Your task to perform on an android device: Go to wifi settings Image 0: 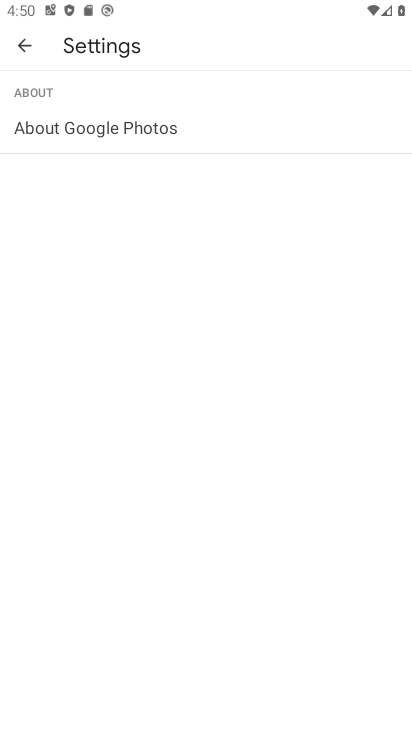
Step 0: press home button
Your task to perform on an android device: Go to wifi settings Image 1: 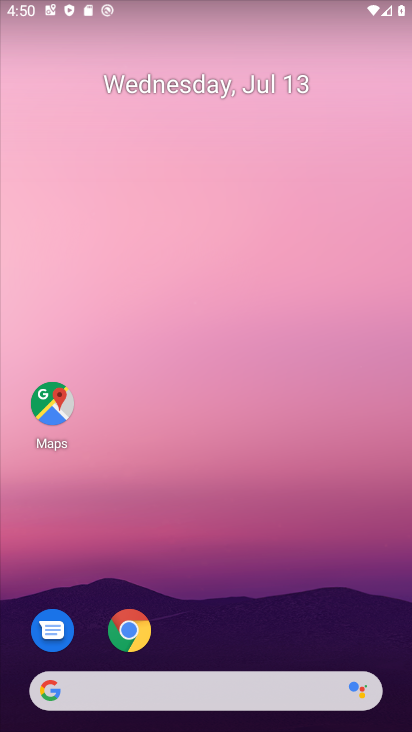
Step 1: drag from (152, 666) to (246, 223)
Your task to perform on an android device: Go to wifi settings Image 2: 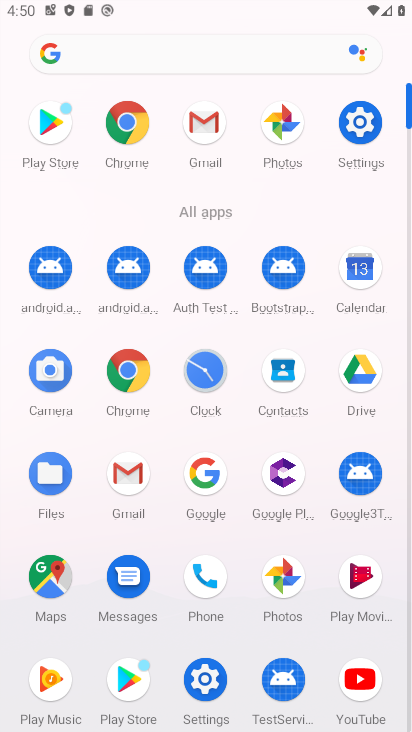
Step 2: click (217, 677)
Your task to perform on an android device: Go to wifi settings Image 3: 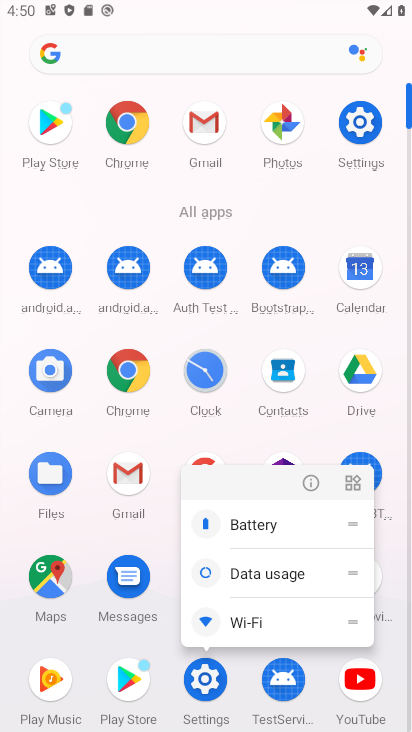
Step 3: click (215, 680)
Your task to perform on an android device: Go to wifi settings Image 4: 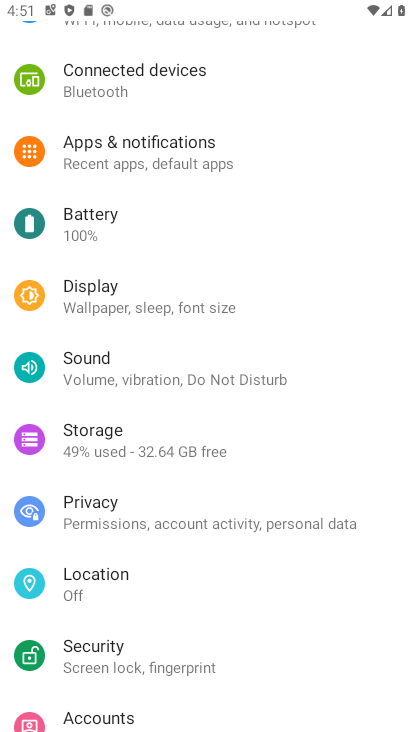
Step 4: drag from (184, 109) to (162, 532)
Your task to perform on an android device: Go to wifi settings Image 5: 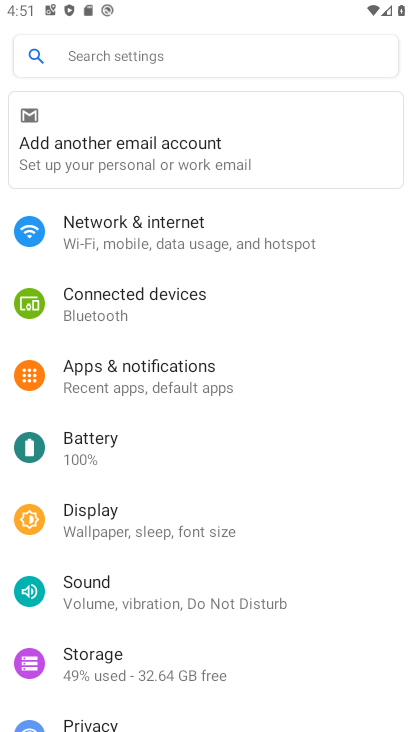
Step 5: click (235, 252)
Your task to perform on an android device: Go to wifi settings Image 6: 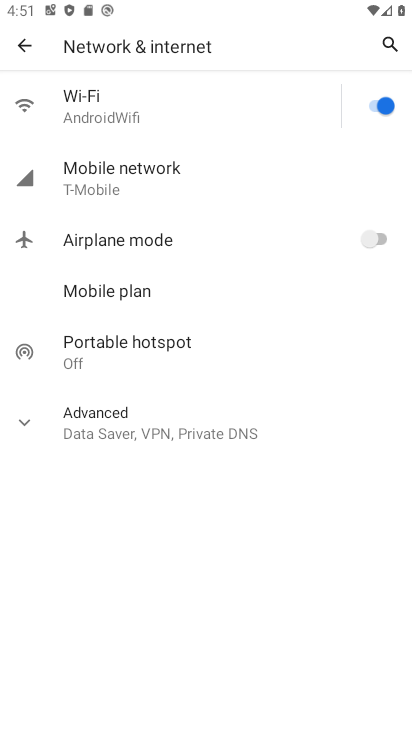
Step 6: click (162, 116)
Your task to perform on an android device: Go to wifi settings Image 7: 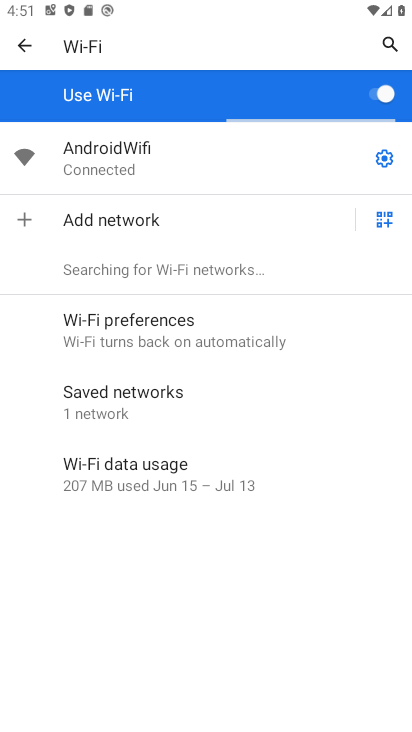
Step 7: task complete